Your task to perform on an android device: move an email to a new category in the gmail app Image 0: 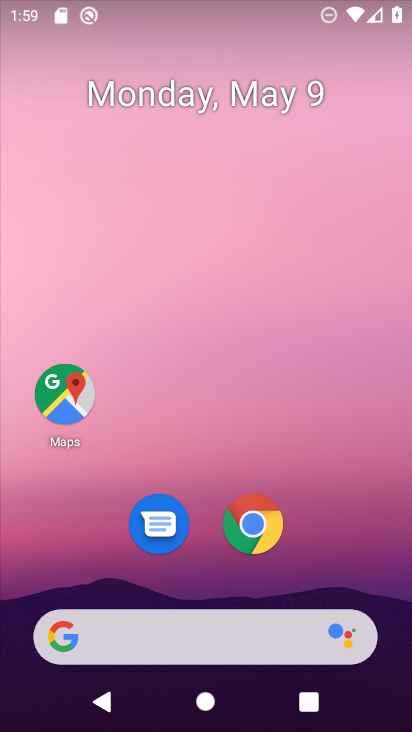
Step 0: drag from (333, 516) to (273, 60)
Your task to perform on an android device: move an email to a new category in the gmail app Image 1: 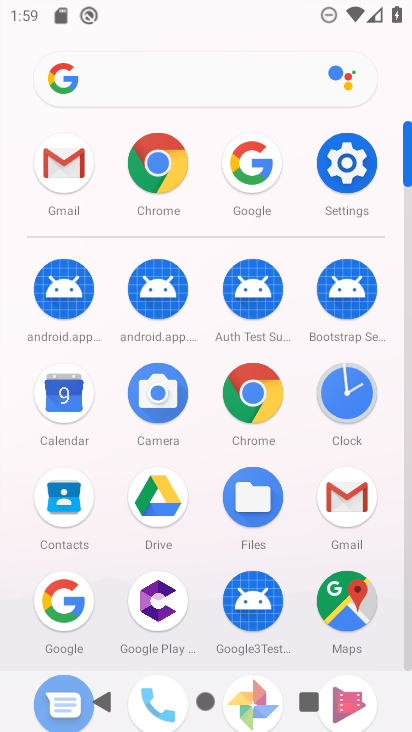
Step 1: click (68, 150)
Your task to perform on an android device: move an email to a new category in the gmail app Image 2: 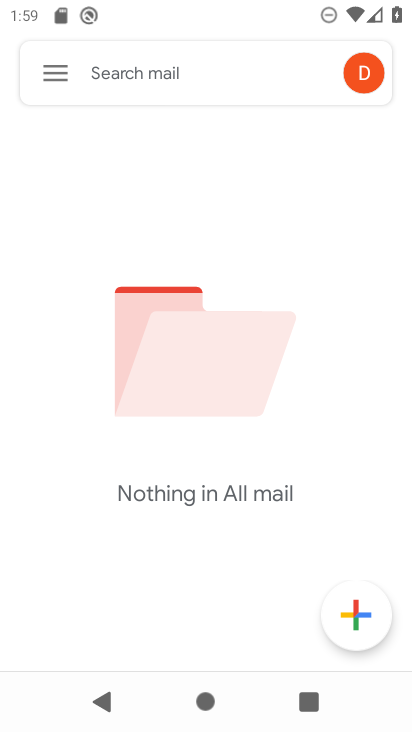
Step 2: task complete